Your task to perform on an android device: manage bookmarks in the chrome app Image 0: 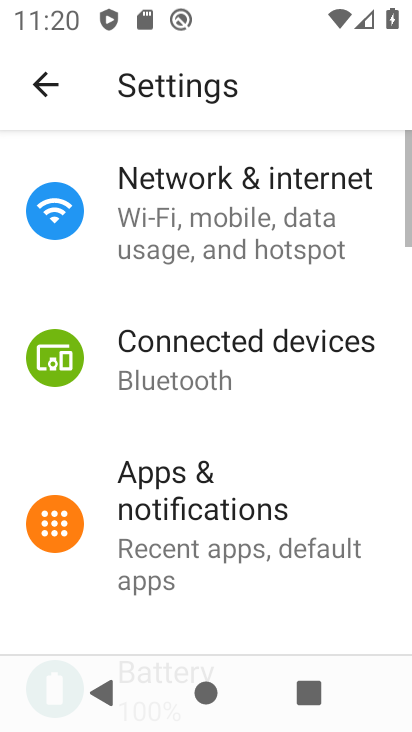
Step 0: click (317, 3)
Your task to perform on an android device: manage bookmarks in the chrome app Image 1: 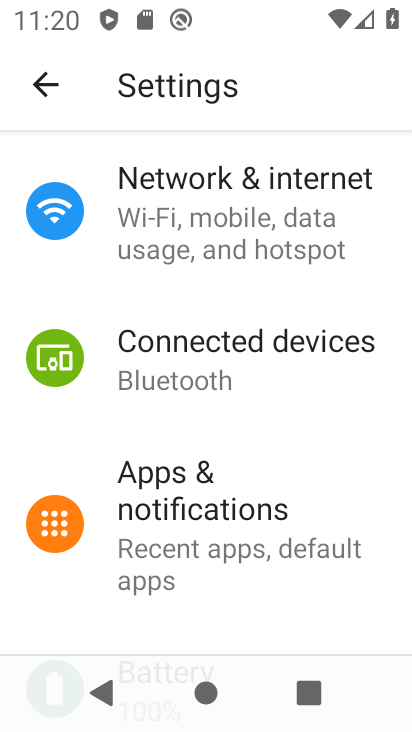
Step 1: press home button
Your task to perform on an android device: manage bookmarks in the chrome app Image 2: 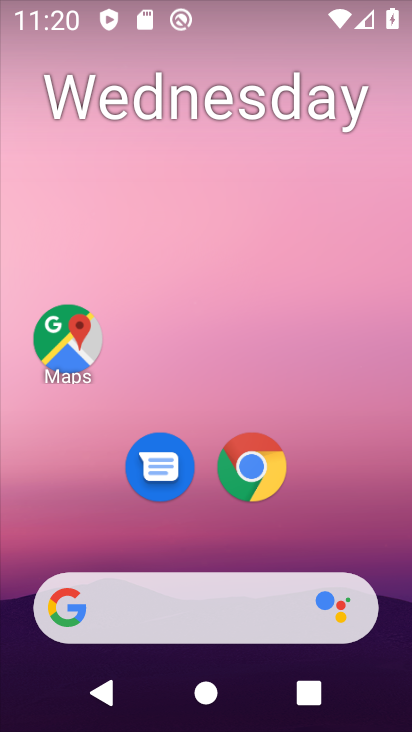
Step 2: drag from (345, 545) to (323, 155)
Your task to perform on an android device: manage bookmarks in the chrome app Image 3: 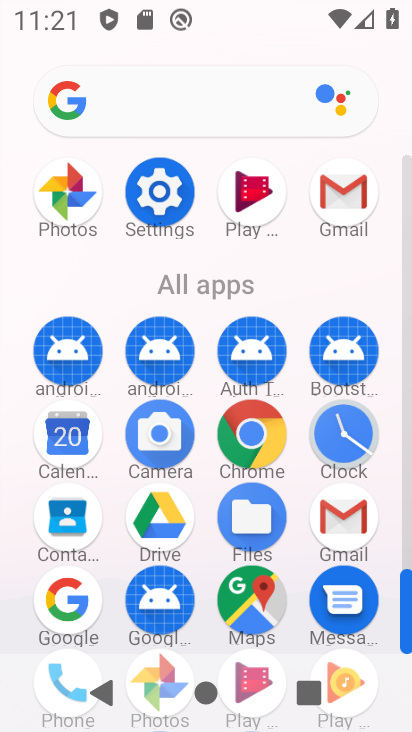
Step 3: click (261, 443)
Your task to perform on an android device: manage bookmarks in the chrome app Image 4: 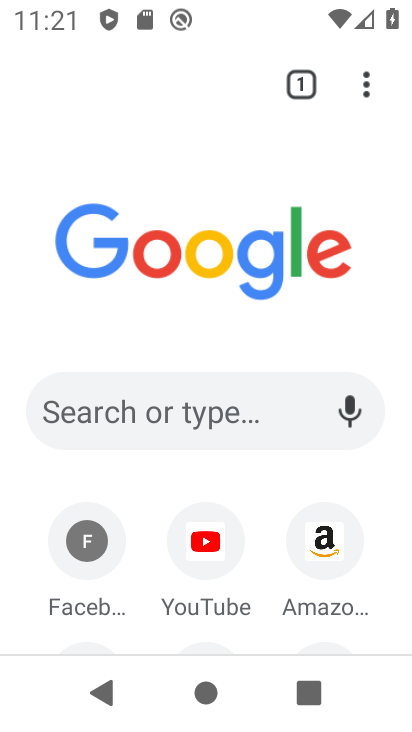
Step 4: click (367, 104)
Your task to perform on an android device: manage bookmarks in the chrome app Image 5: 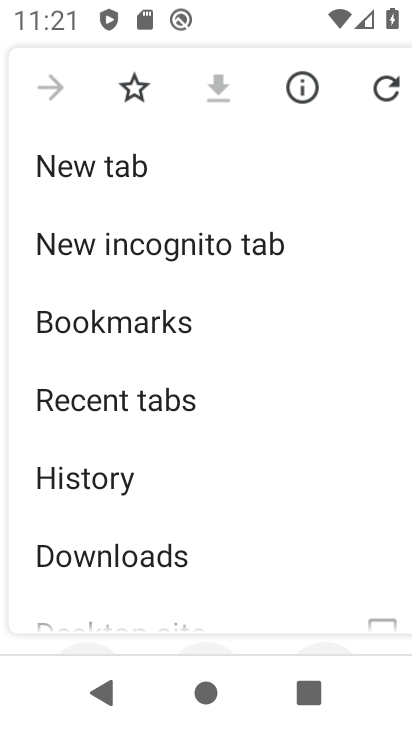
Step 5: click (119, 328)
Your task to perform on an android device: manage bookmarks in the chrome app Image 6: 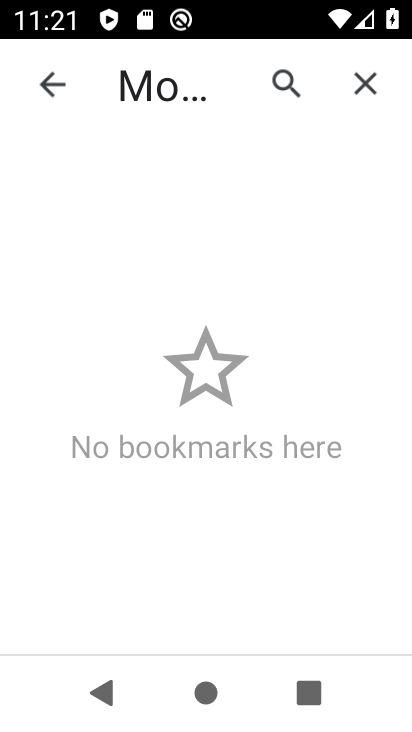
Step 6: task complete